Your task to perform on an android device: turn notification dots off Image 0: 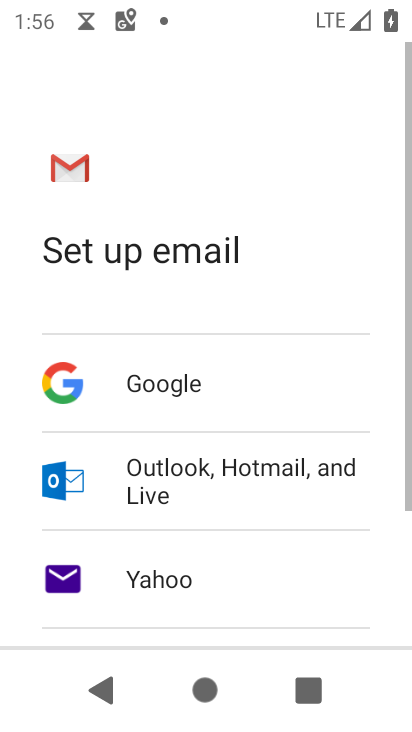
Step 0: press home button
Your task to perform on an android device: turn notification dots off Image 1: 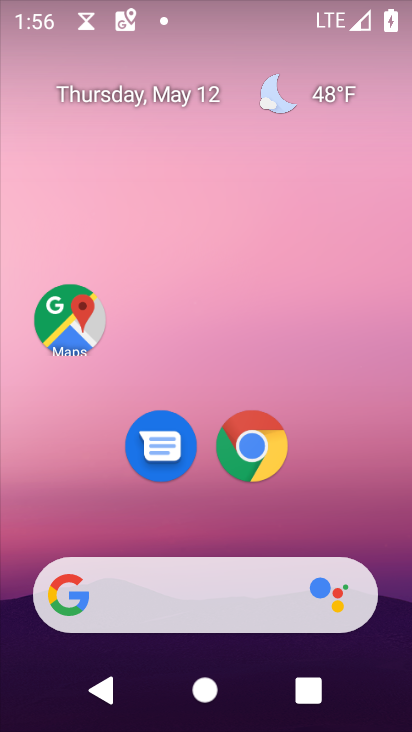
Step 1: drag from (302, 473) to (271, 131)
Your task to perform on an android device: turn notification dots off Image 2: 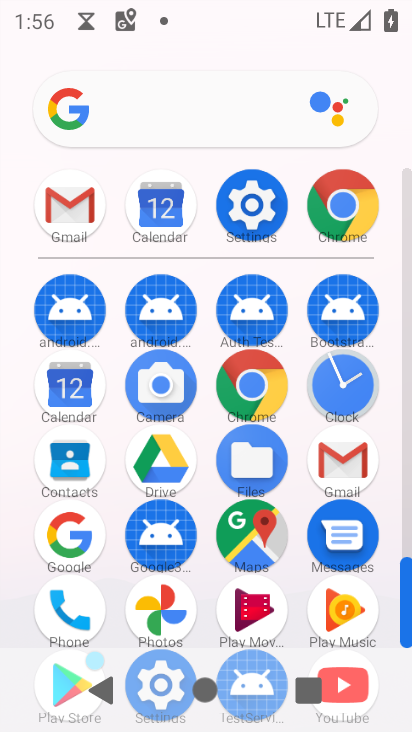
Step 2: click (253, 189)
Your task to perform on an android device: turn notification dots off Image 3: 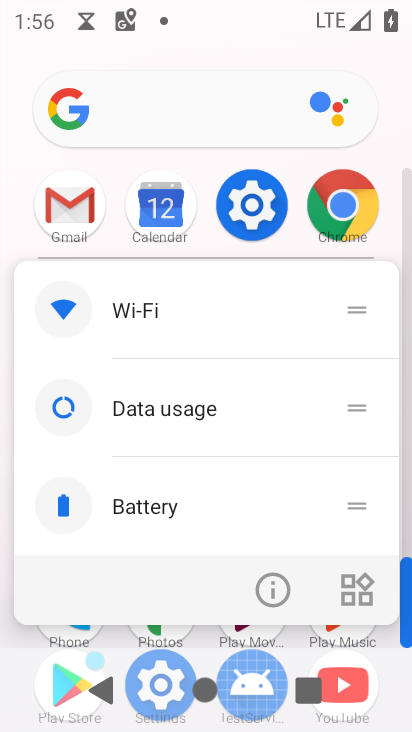
Step 3: click (252, 199)
Your task to perform on an android device: turn notification dots off Image 4: 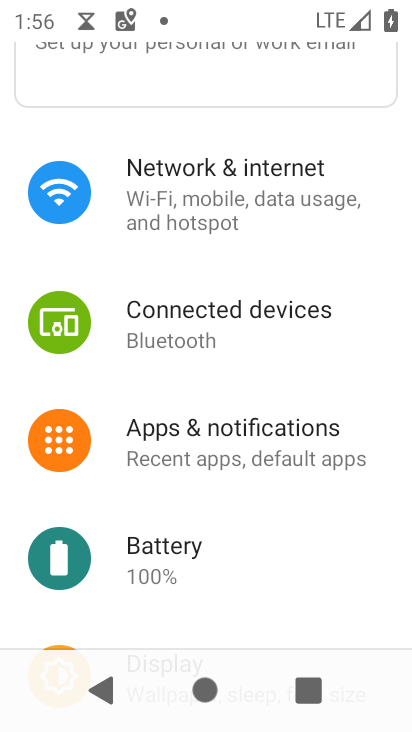
Step 4: click (275, 432)
Your task to perform on an android device: turn notification dots off Image 5: 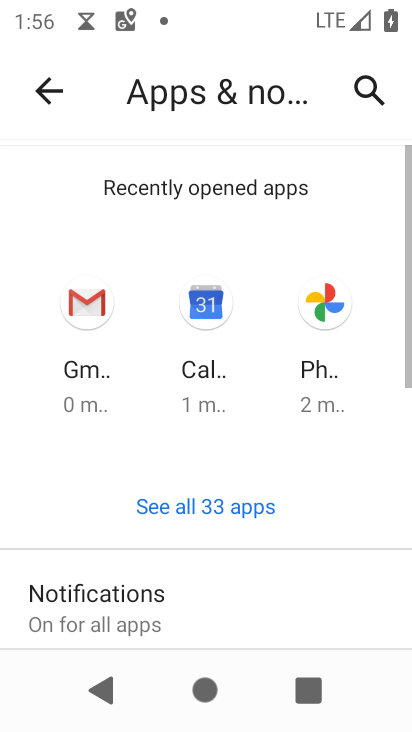
Step 5: drag from (299, 559) to (287, 168)
Your task to perform on an android device: turn notification dots off Image 6: 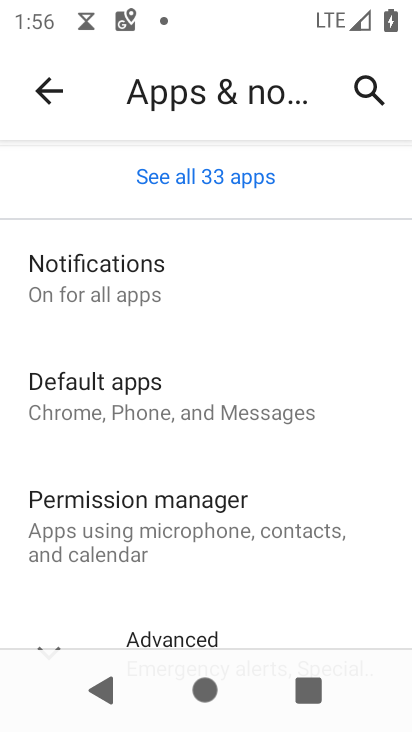
Step 6: click (150, 277)
Your task to perform on an android device: turn notification dots off Image 7: 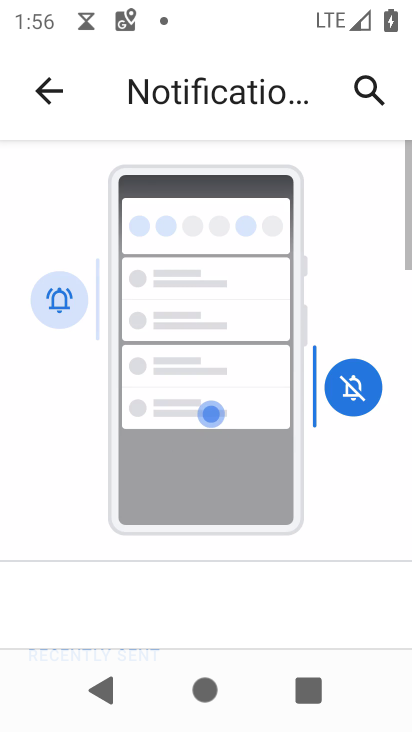
Step 7: drag from (303, 574) to (309, 167)
Your task to perform on an android device: turn notification dots off Image 8: 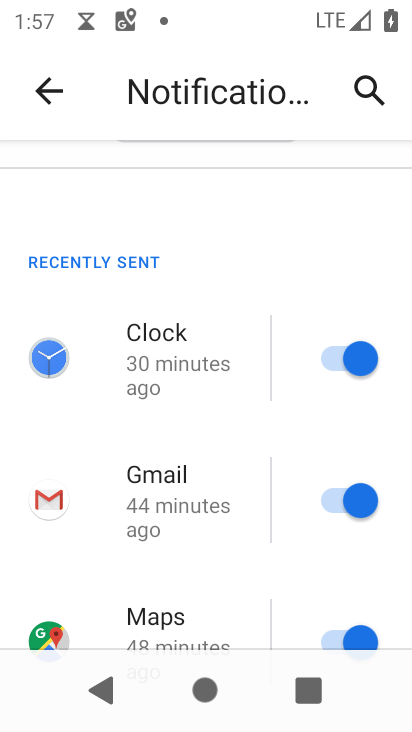
Step 8: drag from (276, 575) to (306, 158)
Your task to perform on an android device: turn notification dots off Image 9: 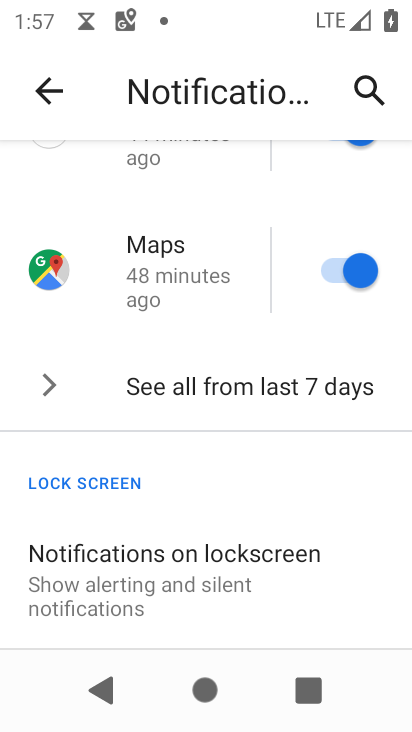
Step 9: drag from (254, 599) to (252, 185)
Your task to perform on an android device: turn notification dots off Image 10: 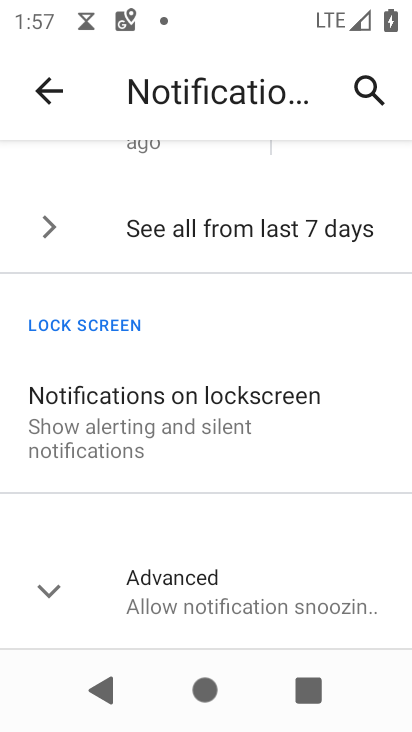
Step 10: click (201, 592)
Your task to perform on an android device: turn notification dots off Image 11: 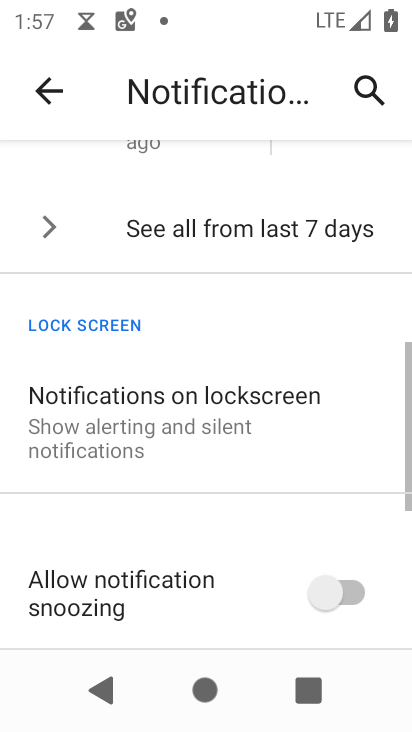
Step 11: drag from (189, 559) to (188, 165)
Your task to perform on an android device: turn notification dots off Image 12: 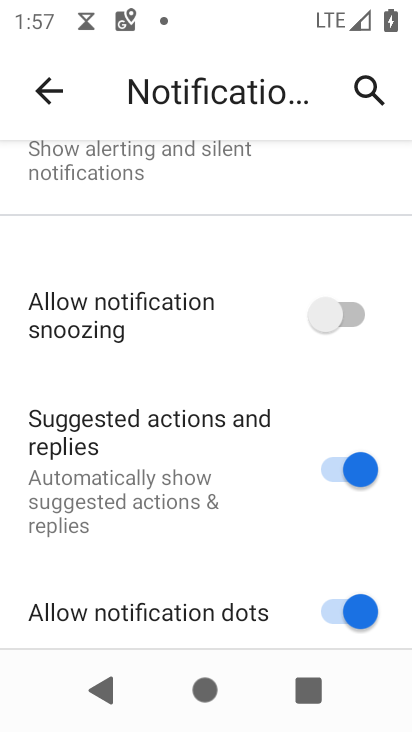
Step 12: click (324, 606)
Your task to perform on an android device: turn notification dots off Image 13: 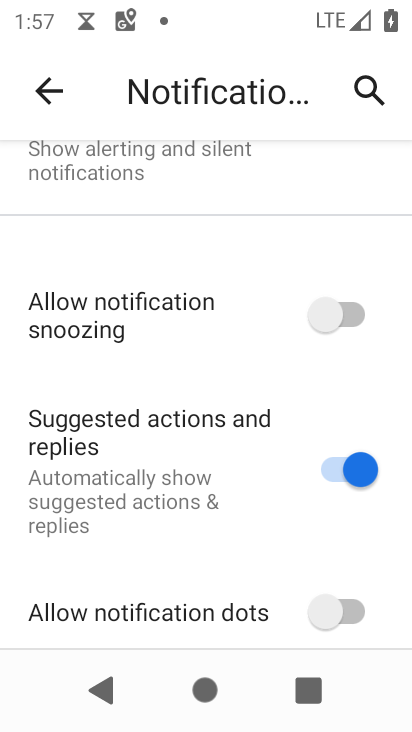
Step 13: task complete